Your task to perform on an android device: turn on notifications settings in the gmail app Image 0: 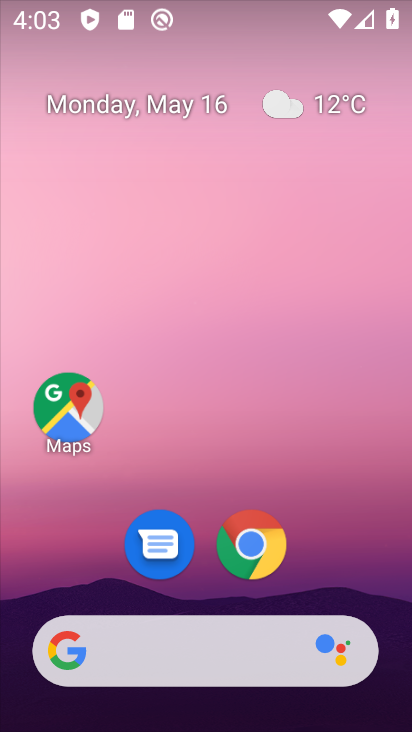
Step 0: drag from (343, 517) to (293, 35)
Your task to perform on an android device: turn on notifications settings in the gmail app Image 1: 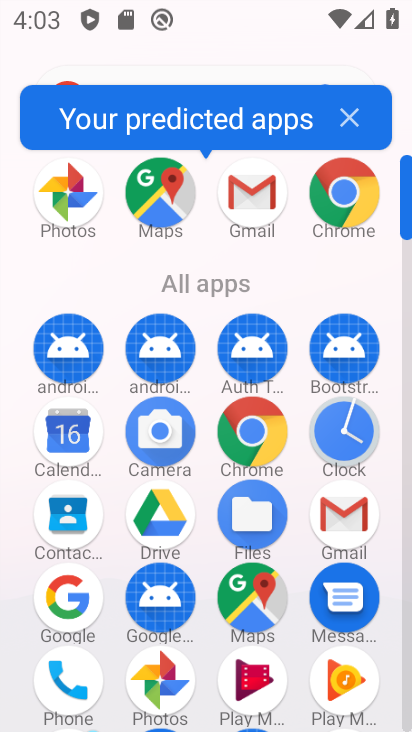
Step 1: click (253, 190)
Your task to perform on an android device: turn on notifications settings in the gmail app Image 2: 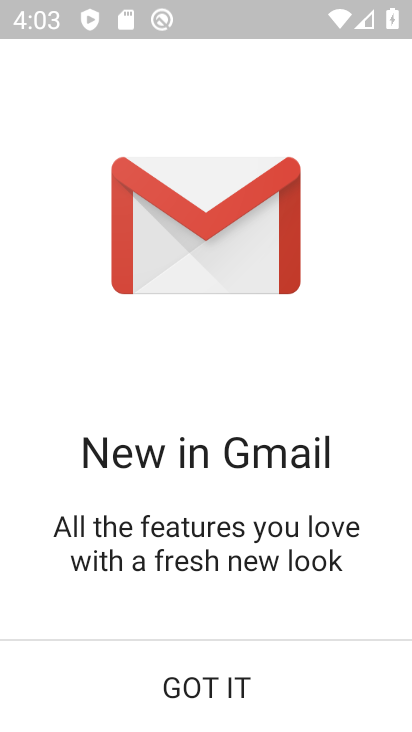
Step 2: click (206, 685)
Your task to perform on an android device: turn on notifications settings in the gmail app Image 3: 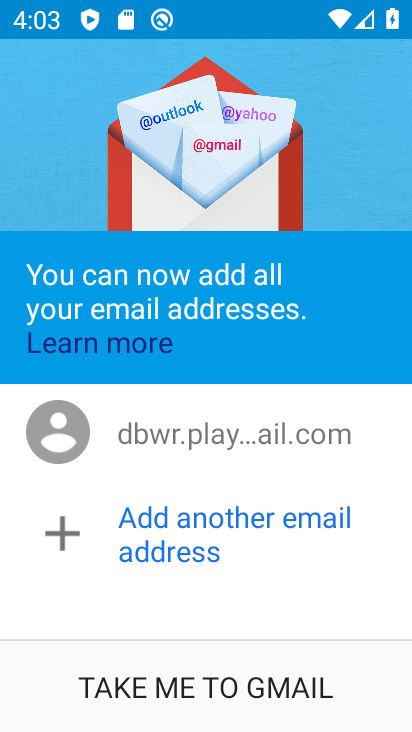
Step 3: click (206, 685)
Your task to perform on an android device: turn on notifications settings in the gmail app Image 4: 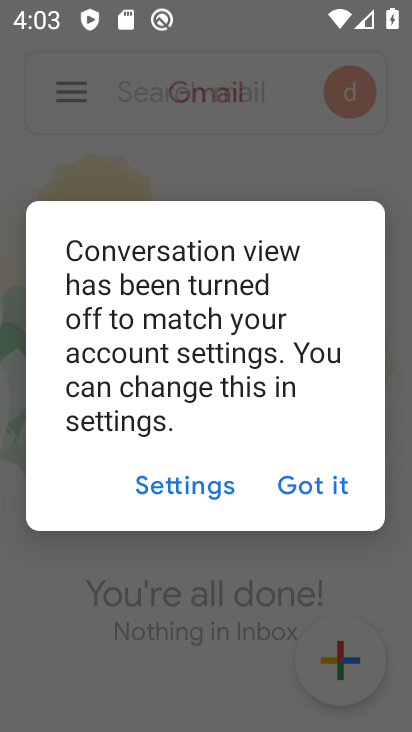
Step 4: click (303, 477)
Your task to perform on an android device: turn on notifications settings in the gmail app Image 5: 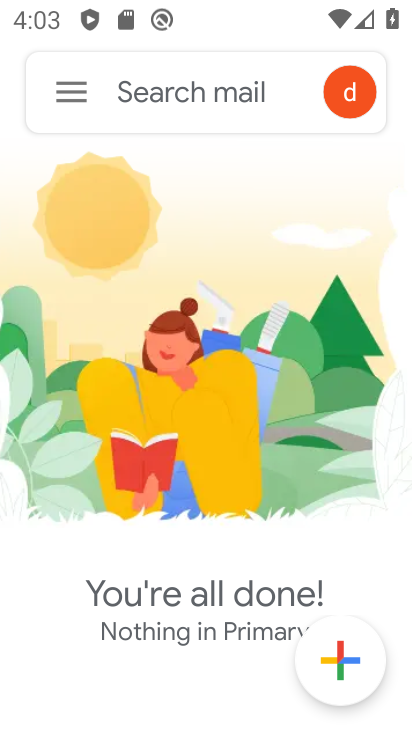
Step 5: click (80, 98)
Your task to perform on an android device: turn on notifications settings in the gmail app Image 6: 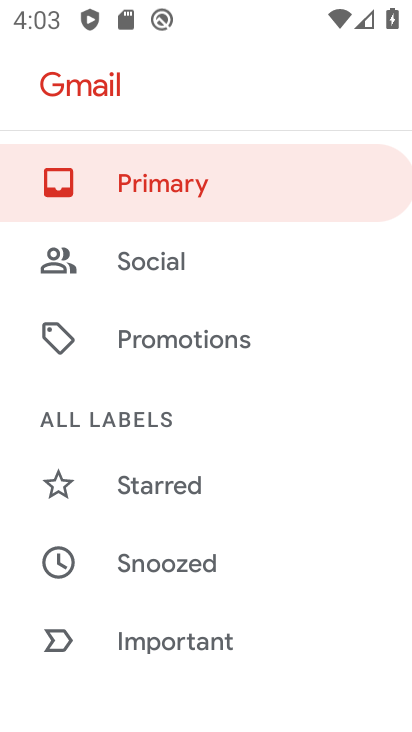
Step 6: drag from (173, 450) to (185, 393)
Your task to perform on an android device: turn on notifications settings in the gmail app Image 7: 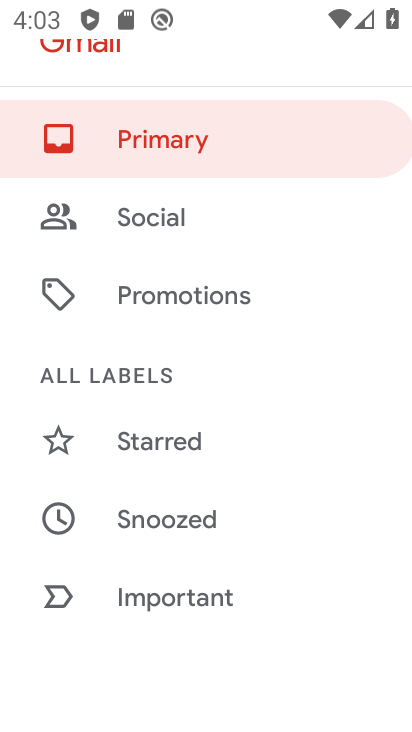
Step 7: drag from (162, 482) to (169, 386)
Your task to perform on an android device: turn on notifications settings in the gmail app Image 8: 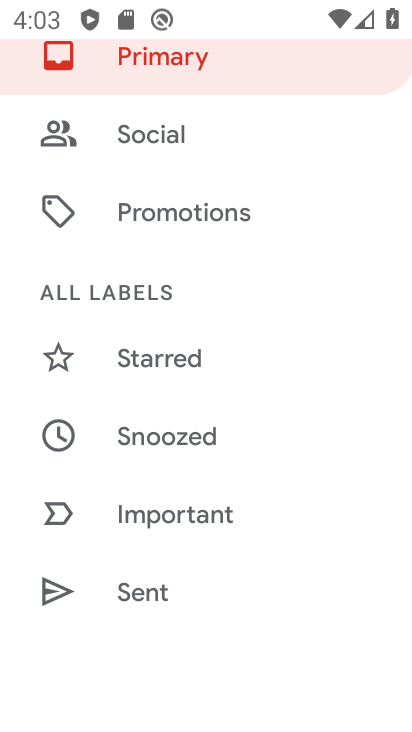
Step 8: drag from (152, 476) to (205, 398)
Your task to perform on an android device: turn on notifications settings in the gmail app Image 9: 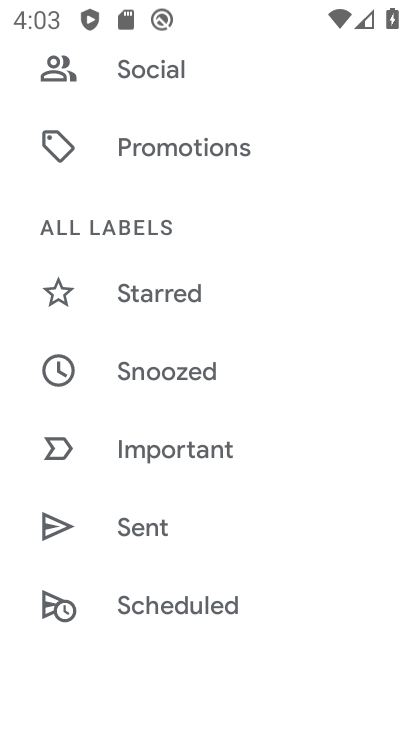
Step 9: drag from (140, 505) to (211, 402)
Your task to perform on an android device: turn on notifications settings in the gmail app Image 10: 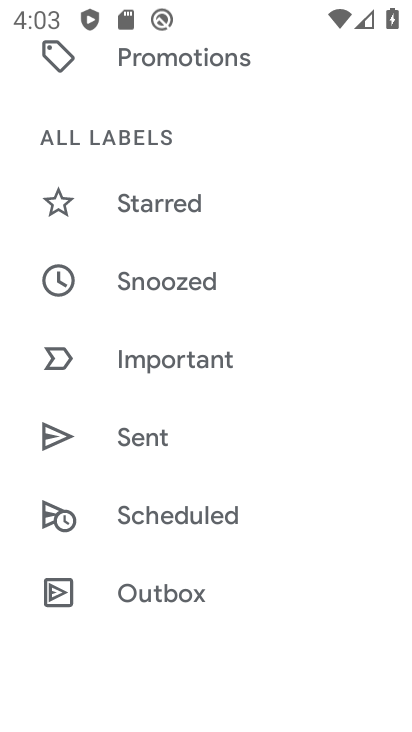
Step 10: drag from (161, 560) to (174, 462)
Your task to perform on an android device: turn on notifications settings in the gmail app Image 11: 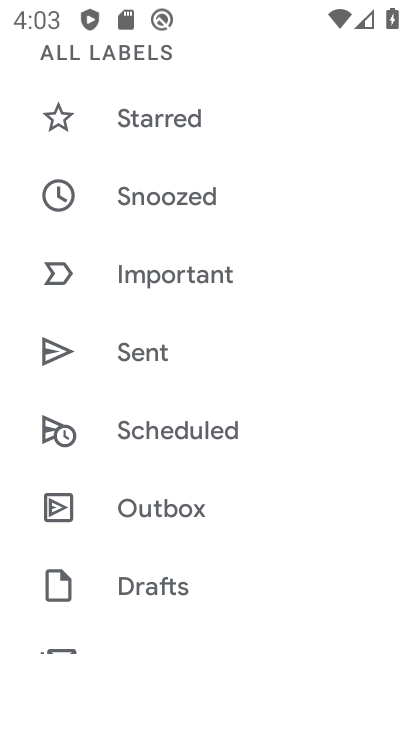
Step 11: drag from (143, 545) to (215, 450)
Your task to perform on an android device: turn on notifications settings in the gmail app Image 12: 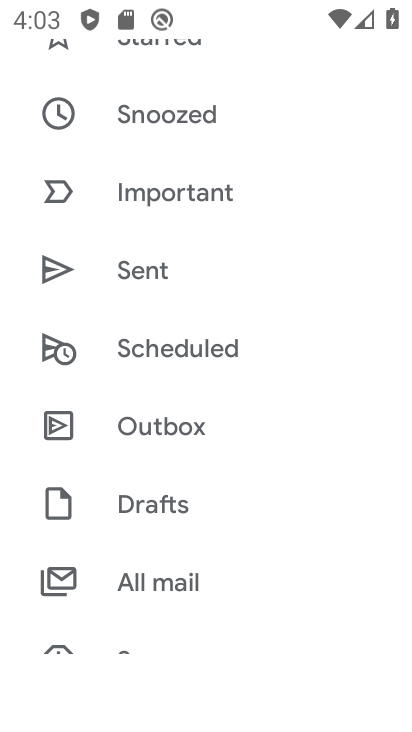
Step 12: drag from (125, 544) to (213, 412)
Your task to perform on an android device: turn on notifications settings in the gmail app Image 13: 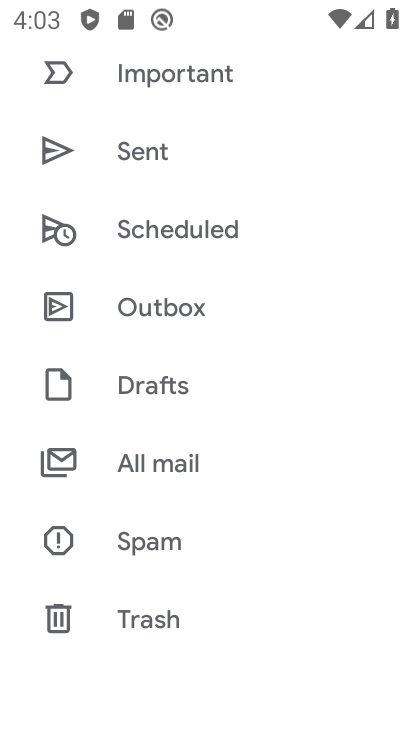
Step 13: drag from (134, 513) to (228, 404)
Your task to perform on an android device: turn on notifications settings in the gmail app Image 14: 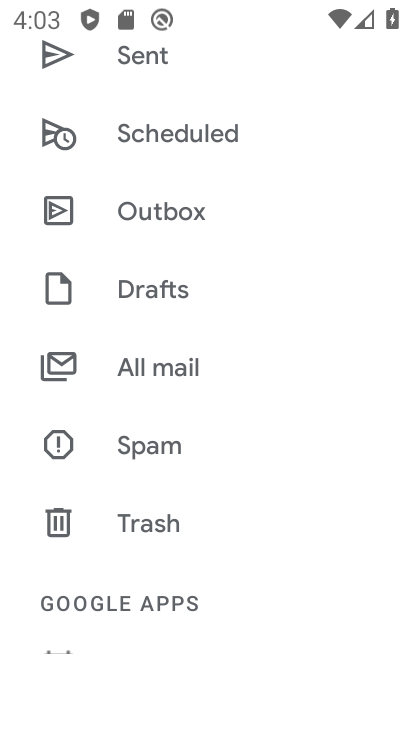
Step 14: drag from (105, 489) to (171, 406)
Your task to perform on an android device: turn on notifications settings in the gmail app Image 15: 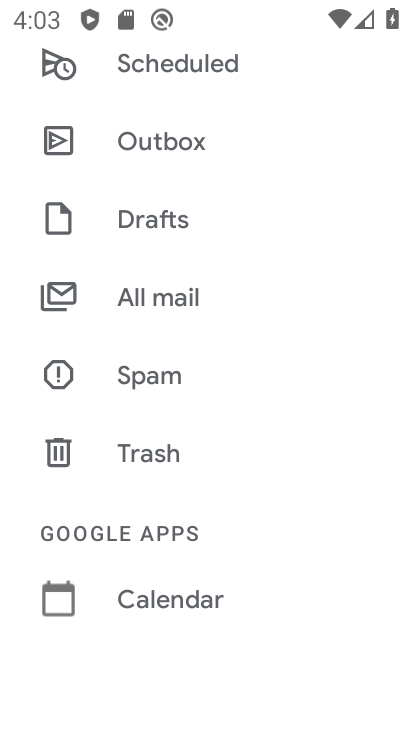
Step 15: drag from (101, 551) to (152, 439)
Your task to perform on an android device: turn on notifications settings in the gmail app Image 16: 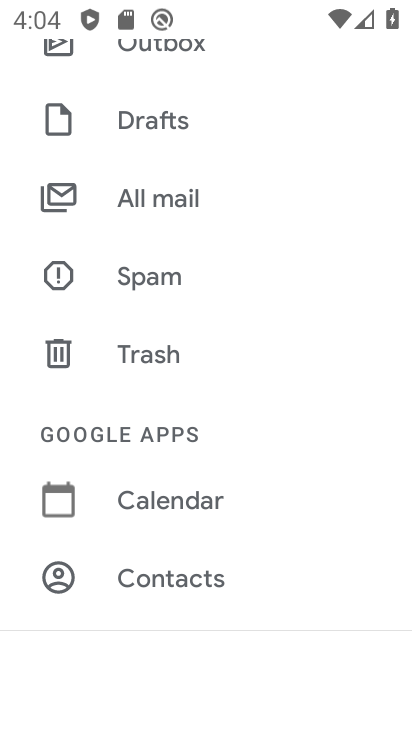
Step 16: drag from (101, 544) to (192, 384)
Your task to perform on an android device: turn on notifications settings in the gmail app Image 17: 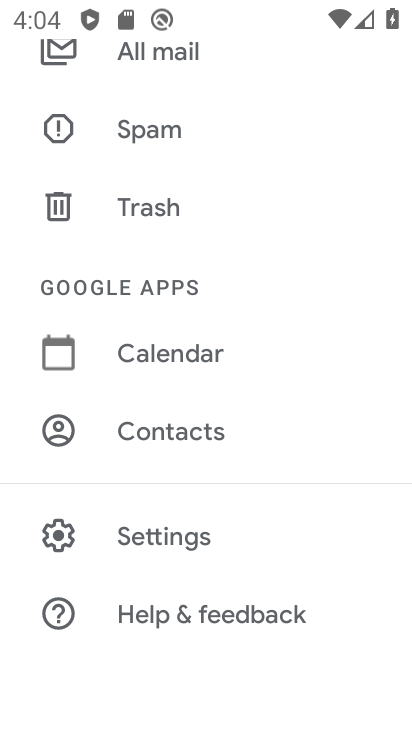
Step 17: click (150, 532)
Your task to perform on an android device: turn on notifications settings in the gmail app Image 18: 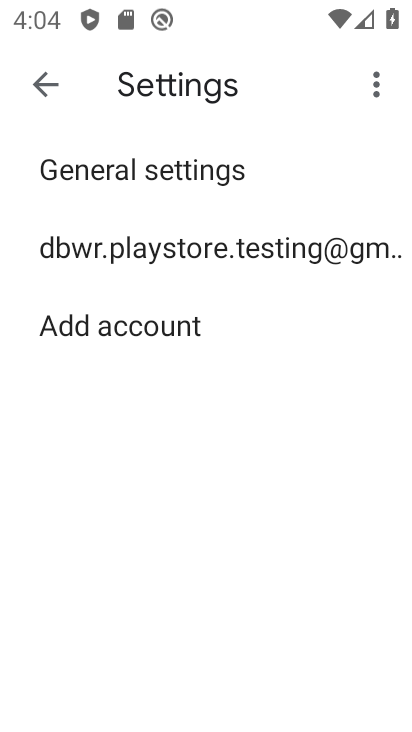
Step 18: click (185, 239)
Your task to perform on an android device: turn on notifications settings in the gmail app Image 19: 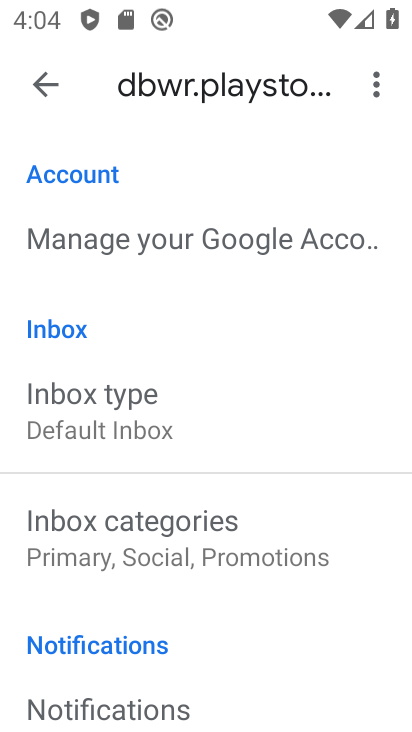
Step 19: drag from (173, 473) to (207, 396)
Your task to perform on an android device: turn on notifications settings in the gmail app Image 20: 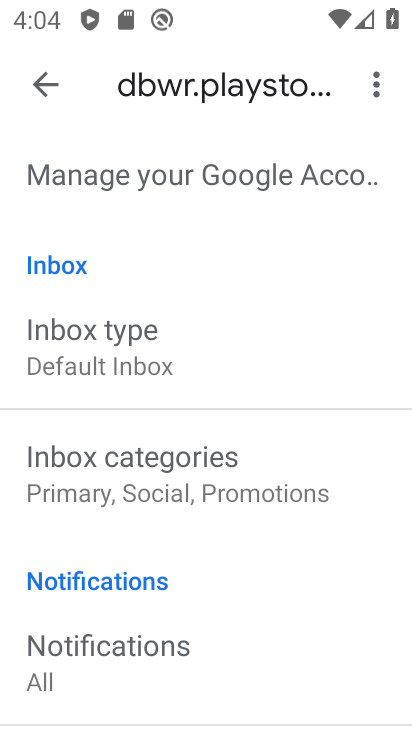
Step 20: drag from (156, 558) to (227, 446)
Your task to perform on an android device: turn on notifications settings in the gmail app Image 21: 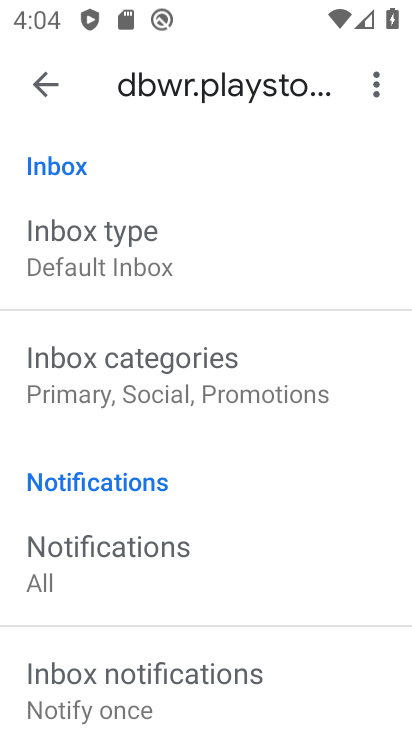
Step 21: drag from (192, 586) to (233, 498)
Your task to perform on an android device: turn on notifications settings in the gmail app Image 22: 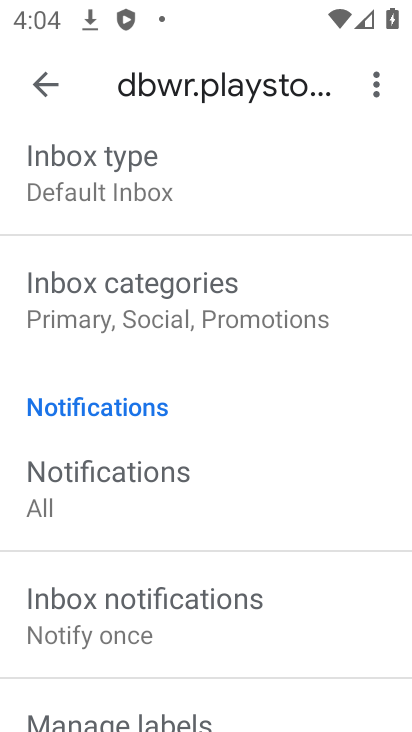
Step 22: drag from (174, 646) to (225, 549)
Your task to perform on an android device: turn on notifications settings in the gmail app Image 23: 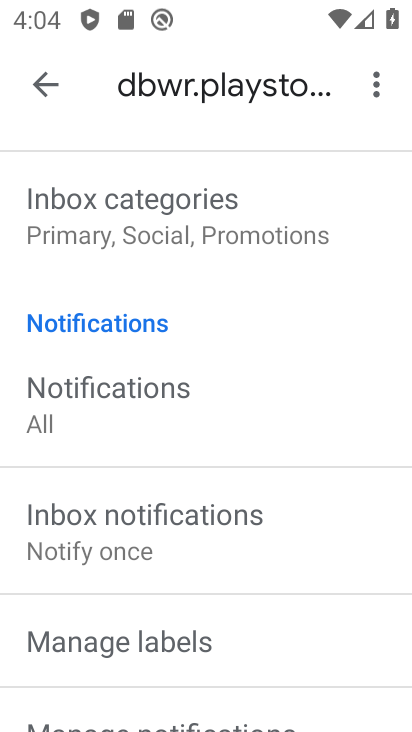
Step 23: drag from (200, 642) to (278, 530)
Your task to perform on an android device: turn on notifications settings in the gmail app Image 24: 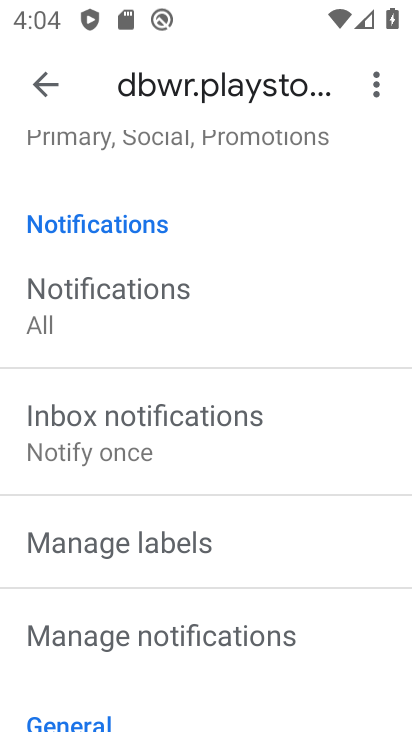
Step 24: click (207, 639)
Your task to perform on an android device: turn on notifications settings in the gmail app Image 25: 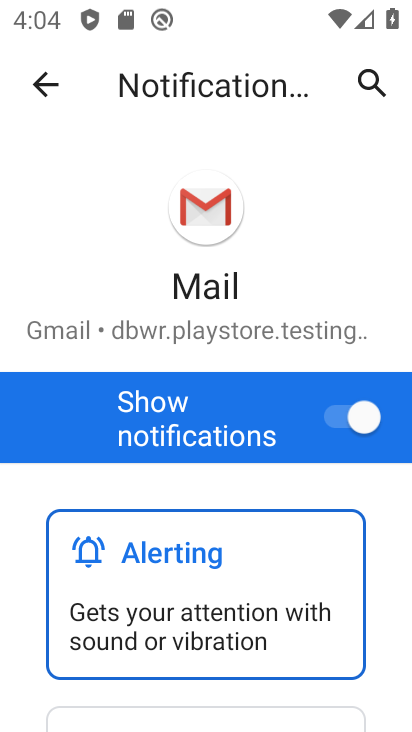
Step 25: task complete